Your task to perform on an android device: make emails show in primary in the gmail app Image 0: 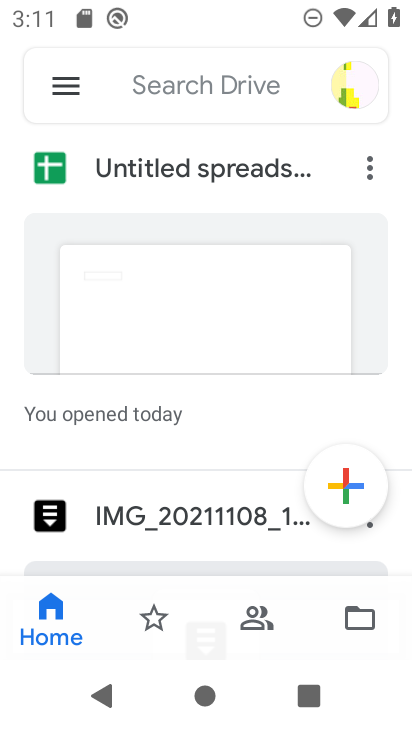
Step 0: press home button
Your task to perform on an android device: make emails show in primary in the gmail app Image 1: 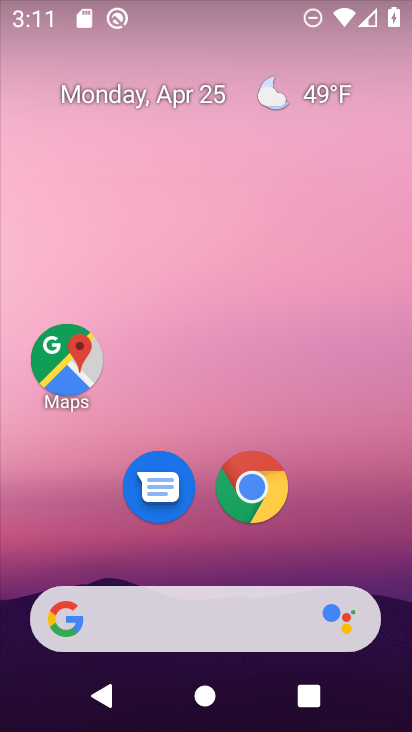
Step 1: drag from (395, 586) to (411, 1)
Your task to perform on an android device: make emails show in primary in the gmail app Image 2: 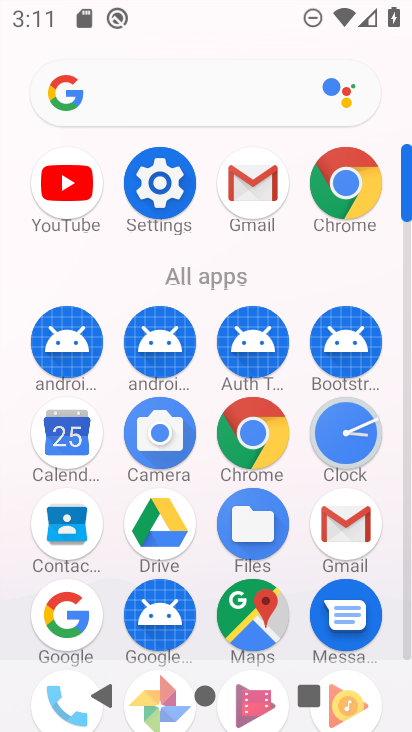
Step 2: click (251, 195)
Your task to perform on an android device: make emails show in primary in the gmail app Image 3: 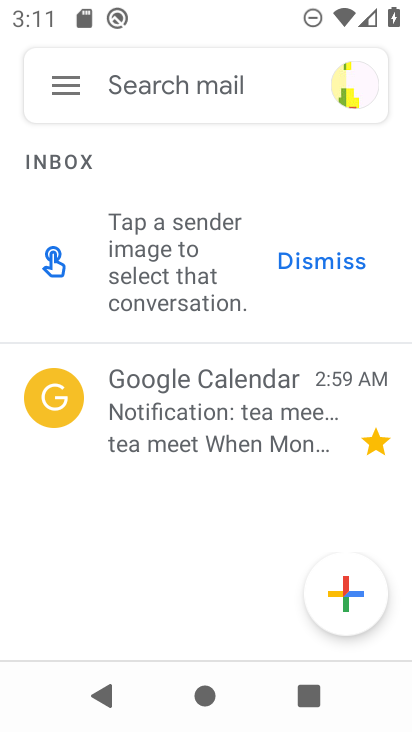
Step 3: click (56, 93)
Your task to perform on an android device: make emails show in primary in the gmail app Image 4: 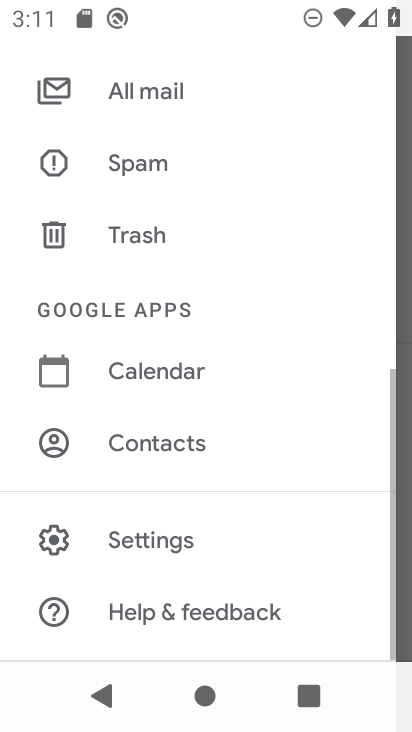
Step 4: click (174, 540)
Your task to perform on an android device: make emails show in primary in the gmail app Image 5: 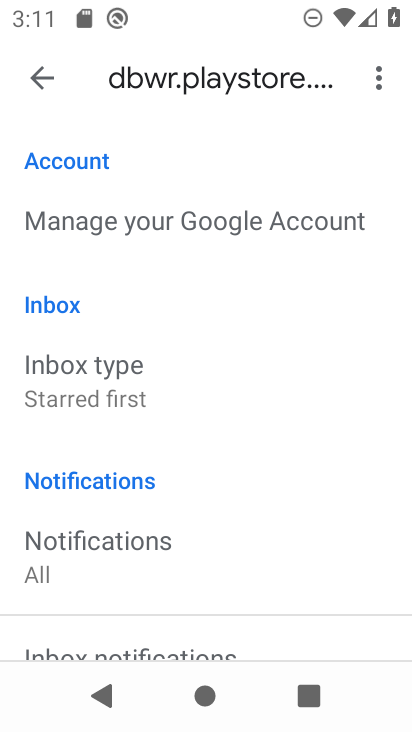
Step 5: task complete